Your task to perform on an android device: turn off location history Image 0: 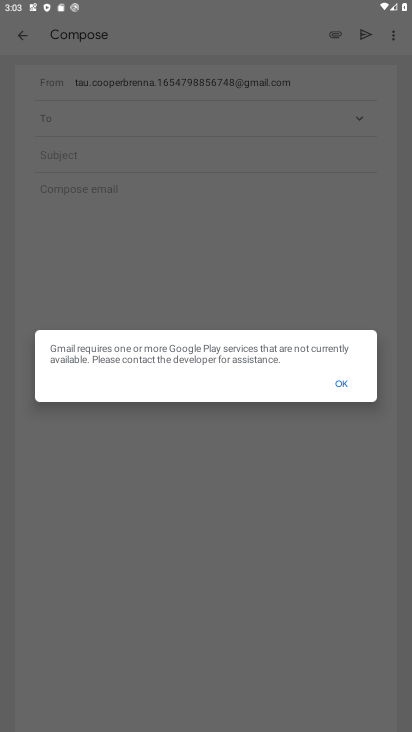
Step 0: click (334, 385)
Your task to perform on an android device: turn off location history Image 1: 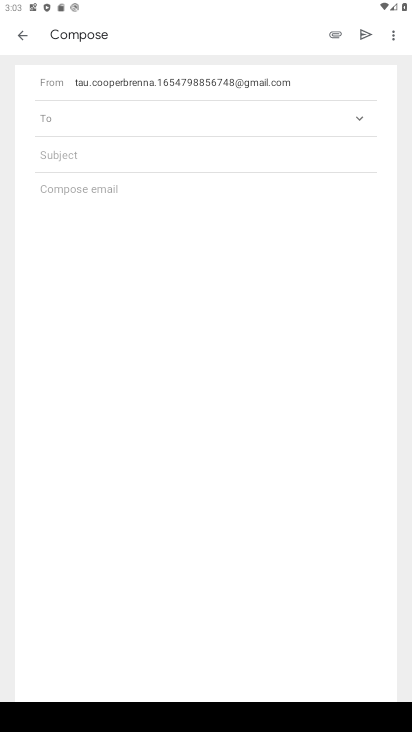
Step 1: click (25, 32)
Your task to perform on an android device: turn off location history Image 2: 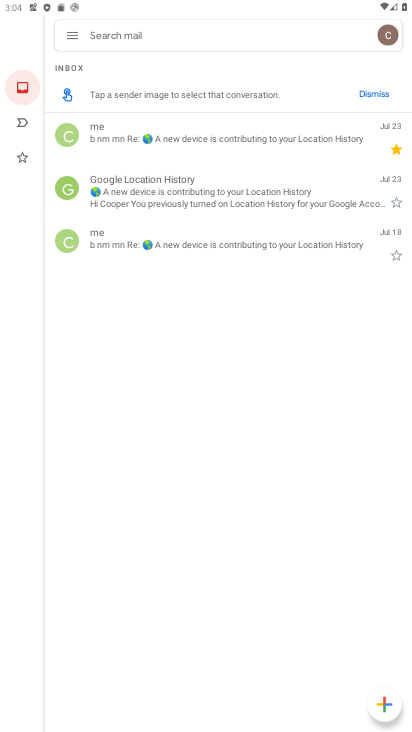
Step 2: click (70, 31)
Your task to perform on an android device: turn off location history Image 3: 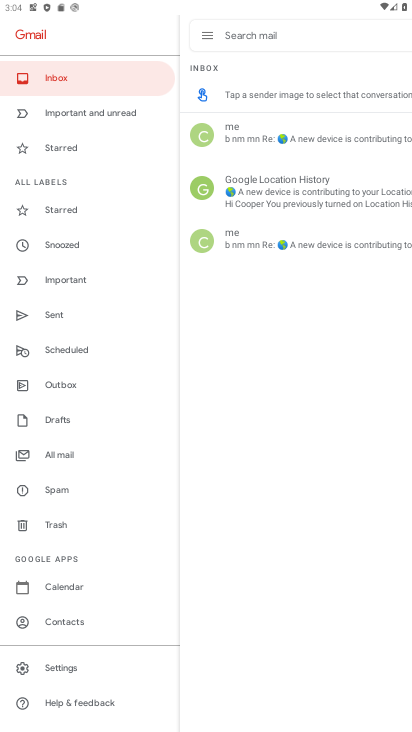
Step 3: press home button
Your task to perform on an android device: turn off location history Image 4: 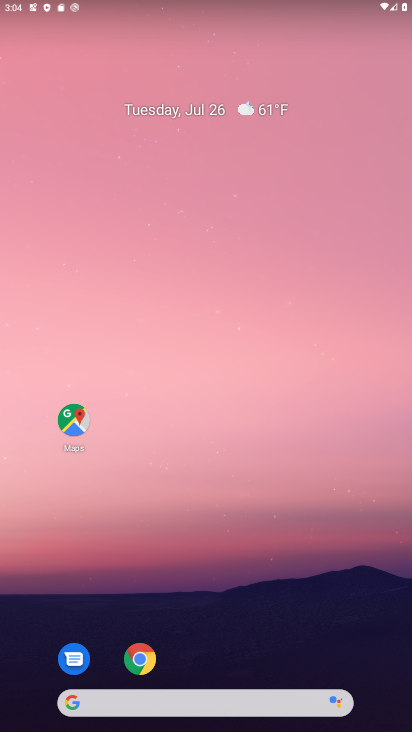
Step 4: drag from (224, 298) to (239, 81)
Your task to perform on an android device: turn off location history Image 5: 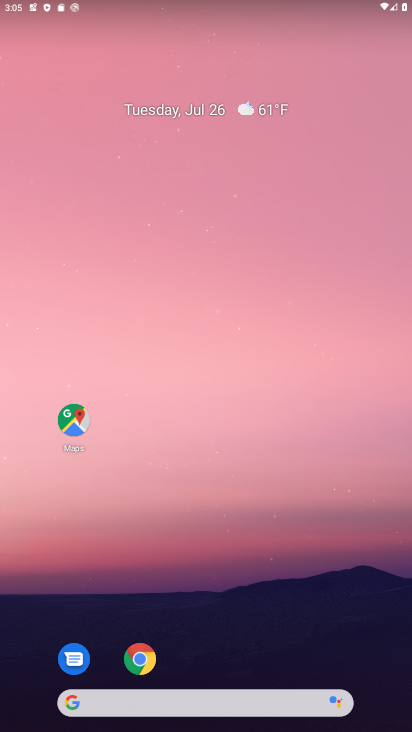
Step 5: drag from (241, 533) to (265, 0)
Your task to perform on an android device: turn off location history Image 6: 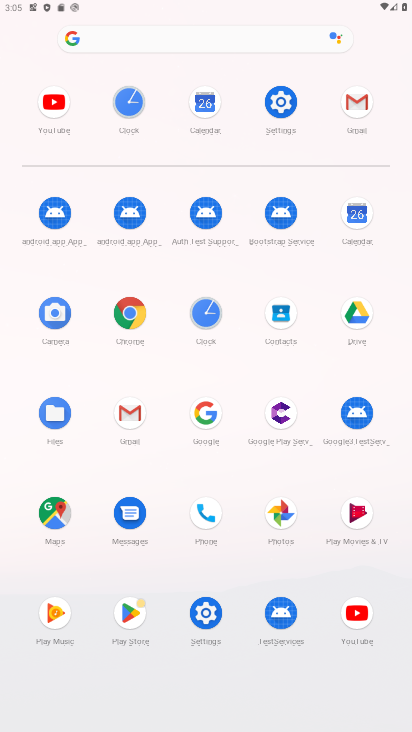
Step 6: click (281, 91)
Your task to perform on an android device: turn off location history Image 7: 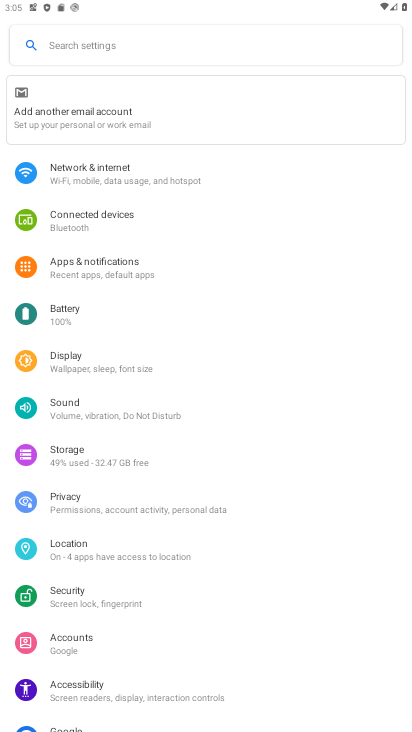
Step 7: click (122, 555)
Your task to perform on an android device: turn off location history Image 8: 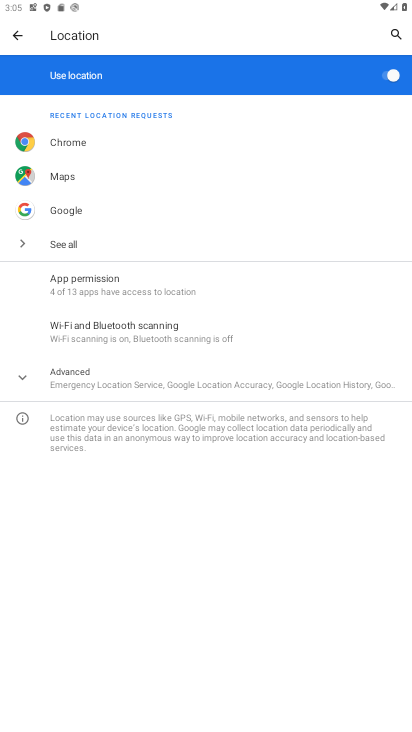
Step 8: click (172, 388)
Your task to perform on an android device: turn off location history Image 9: 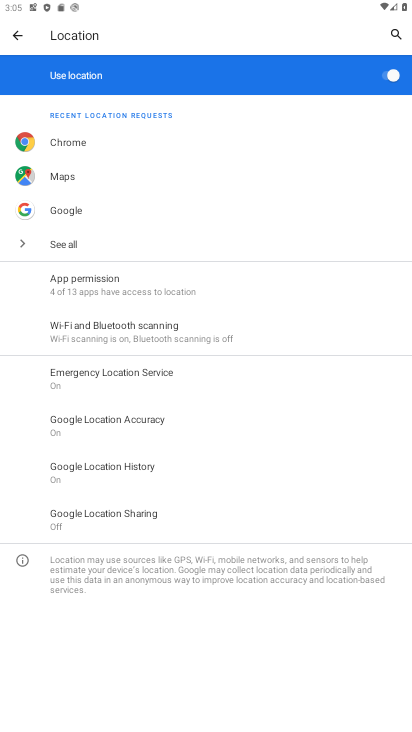
Step 9: click (118, 468)
Your task to perform on an android device: turn off location history Image 10: 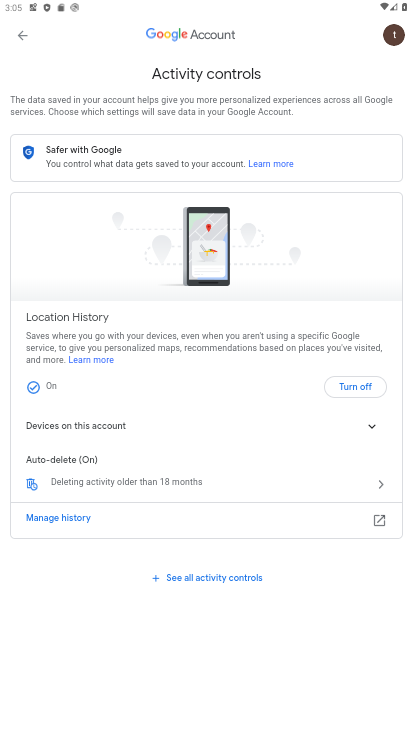
Step 10: click (363, 384)
Your task to perform on an android device: turn off location history Image 11: 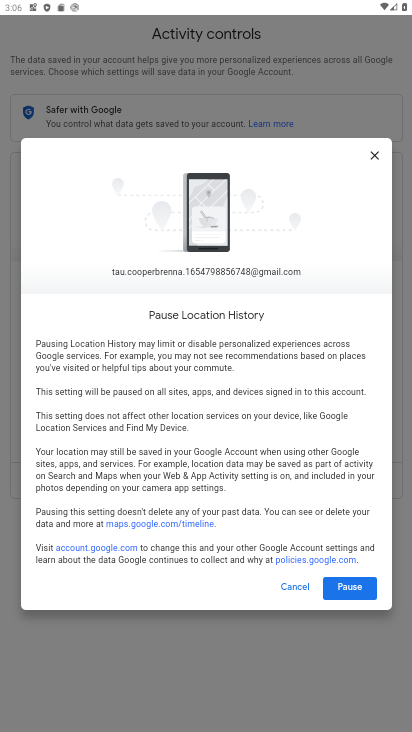
Step 11: click (356, 582)
Your task to perform on an android device: turn off location history Image 12: 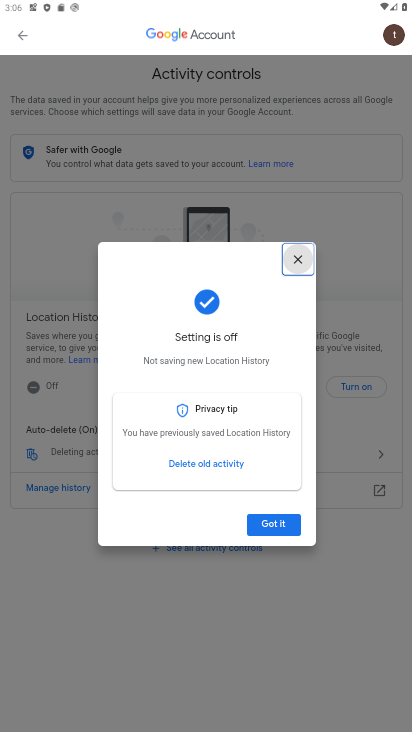
Step 12: click (276, 527)
Your task to perform on an android device: turn off location history Image 13: 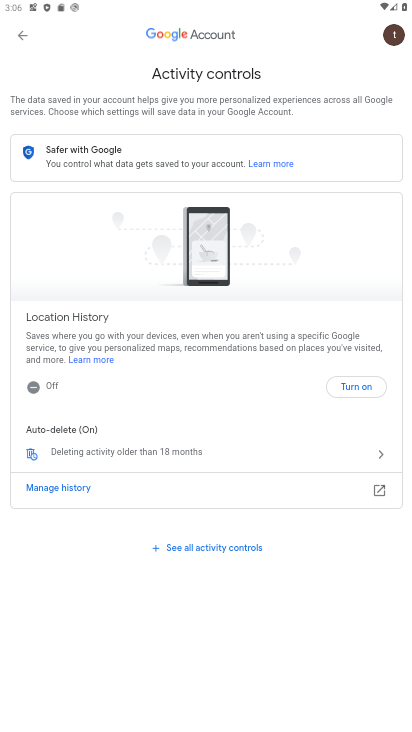
Step 13: task complete